Your task to perform on an android device: star an email in the gmail app Image 0: 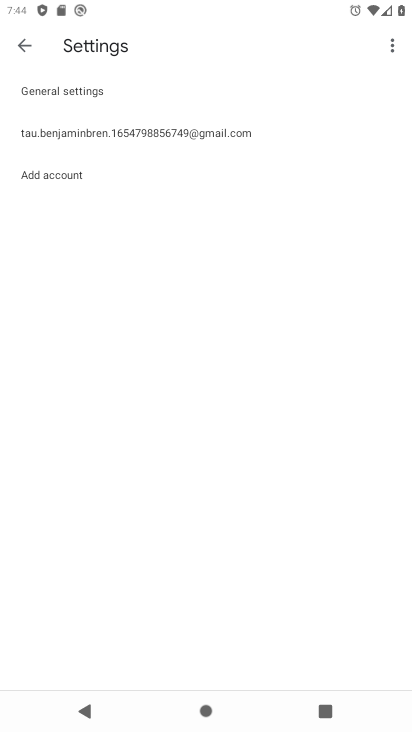
Step 0: press home button
Your task to perform on an android device: star an email in the gmail app Image 1: 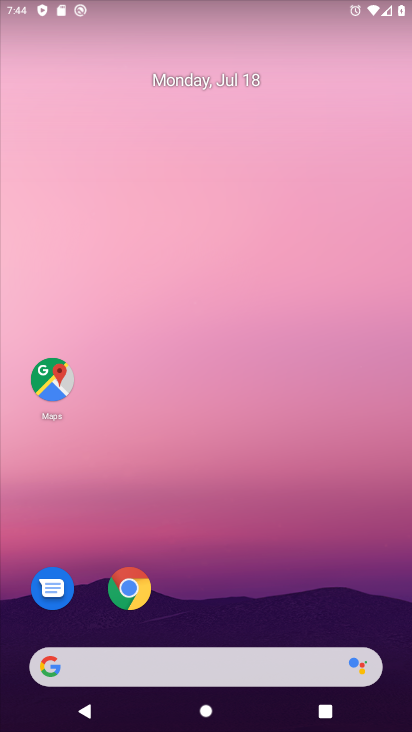
Step 1: drag from (215, 490) to (223, 80)
Your task to perform on an android device: star an email in the gmail app Image 2: 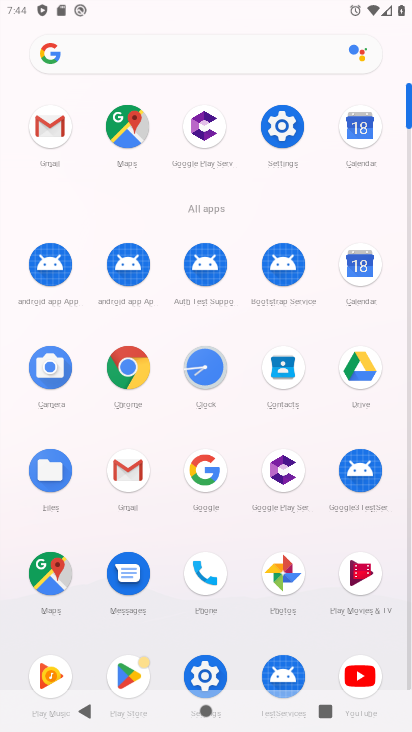
Step 2: click (120, 467)
Your task to perform on an android device: star an email in the gmail app Image 3: 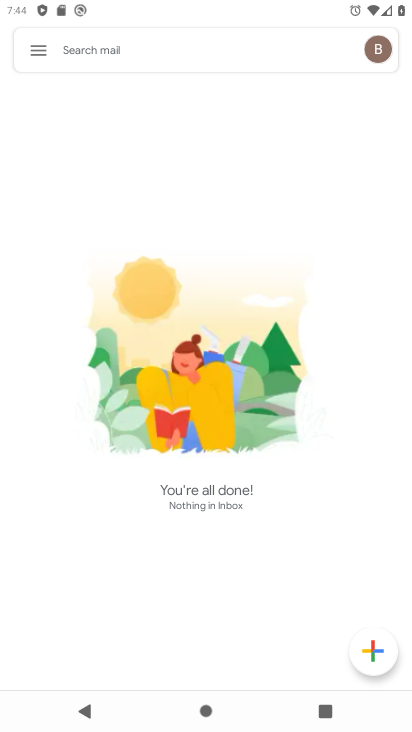
Step 3: task complete